Your task to perform on an android device: change the clock display to analog Image 0: 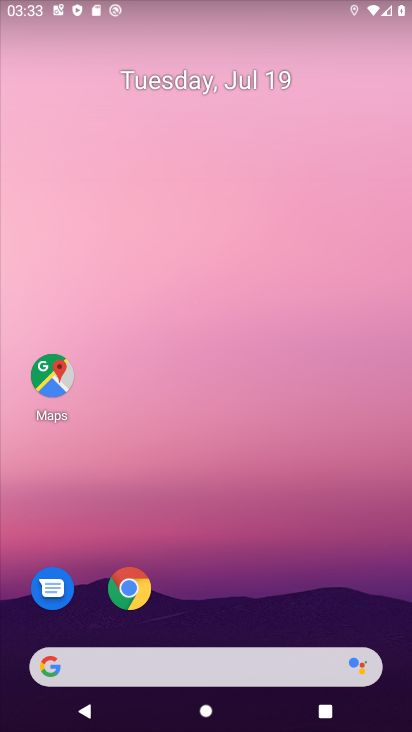
Step 0: drag from (243, 290) to (195, 14)
Your task to perform on an android device: change the clock display to analog Image 1: 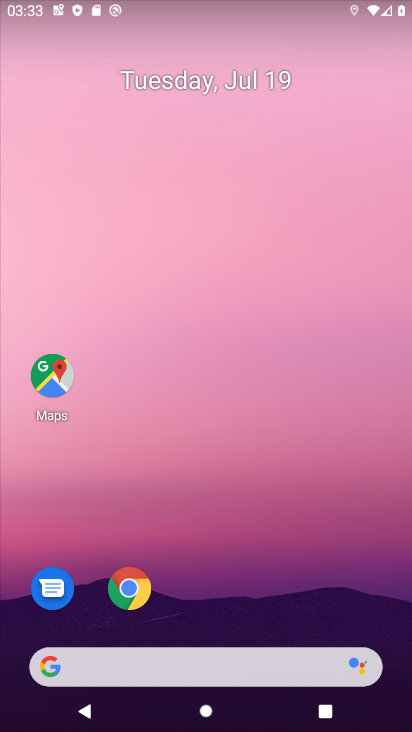
Step 1: drag from (227, 584) to (190, 126)
Your task to perform on an android device: change the clock display to analog Image 2: 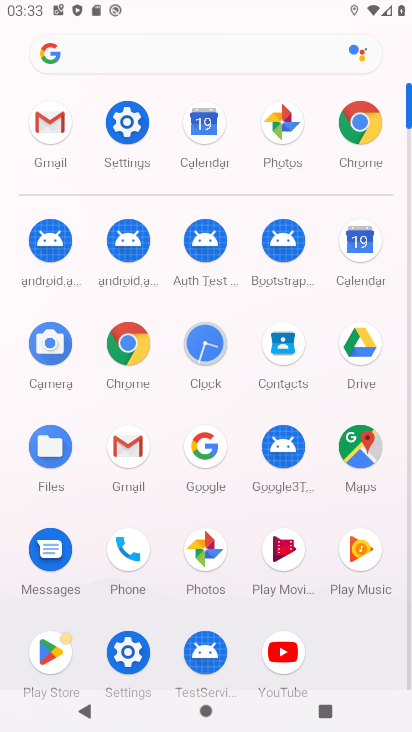
Step 2: click (209, 340)
Your task to perform on an android device: change the clock display to analog Image 3: 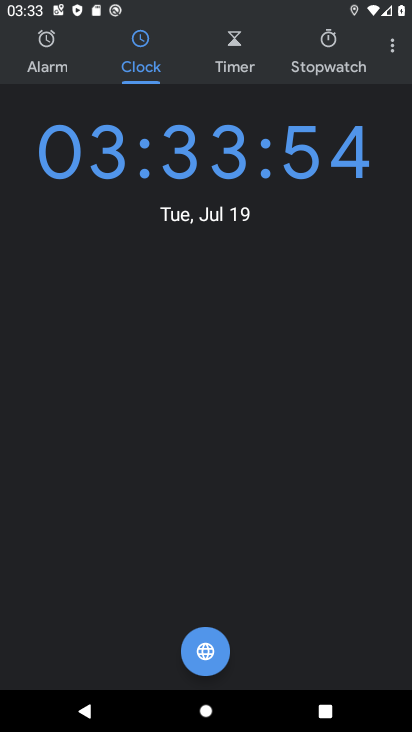
Step 3: click (393, 45)
Your task to perform on an android device: change the clock display to analog Image 4: 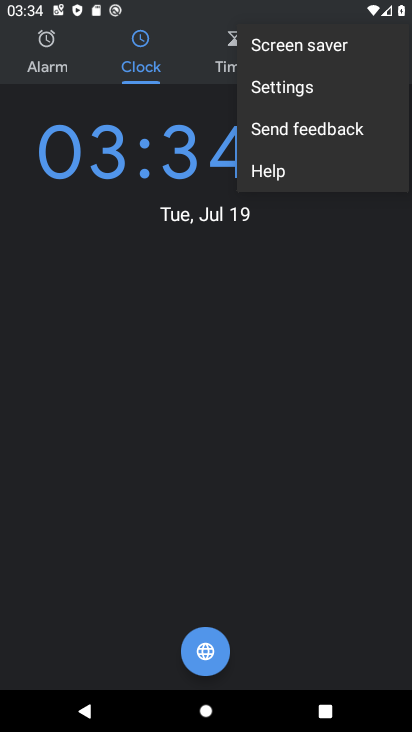
Step 4: click (269, 97)
Your task to perform on an android device: change the clock display to analog Image 5: 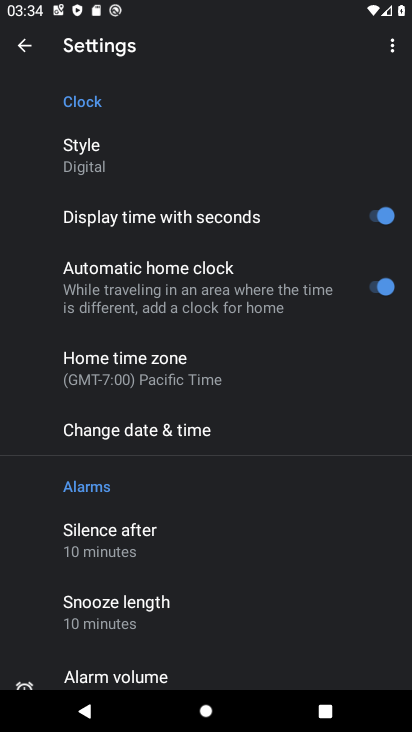
Step 5: click (83, 147)
Your task to perform on an android device: change the clock display to analog Image 6: 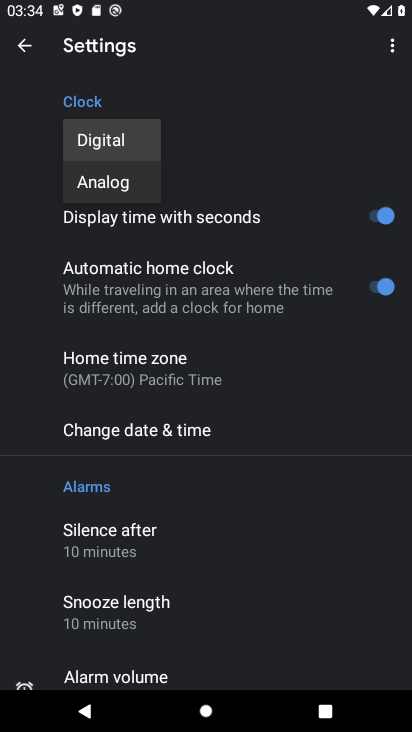
Step 6: click (96, 183)
Your task to perform on an android device: change the clock display to analog Image 7: 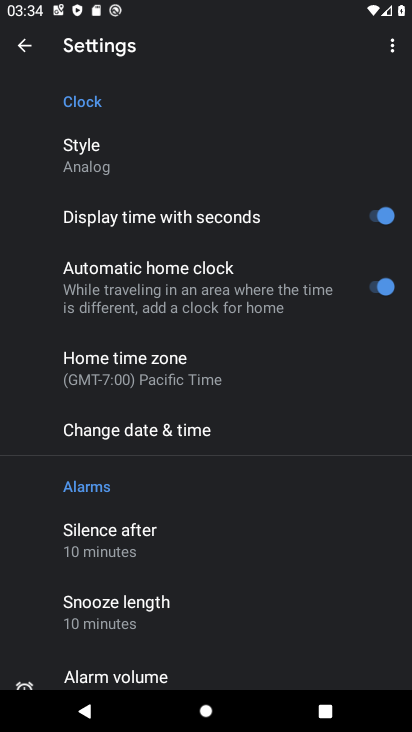
Step 7: task complete